Your task to perform on an android device: check out phone information Image 0: 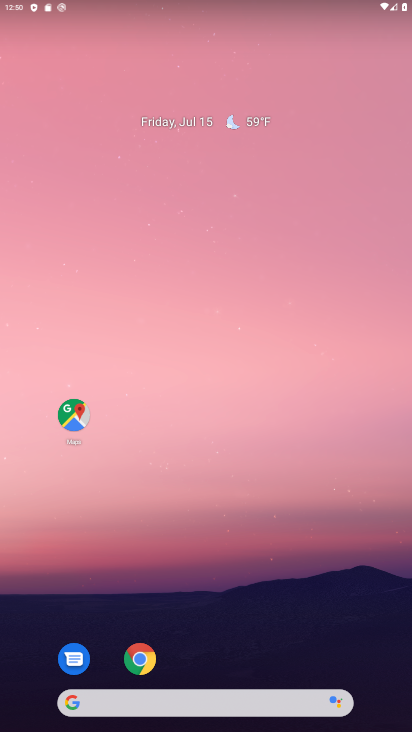
Step 0: drag from (213, 643) to (278, 131)
Your task to perform on an android device: check out phone information Image 1: 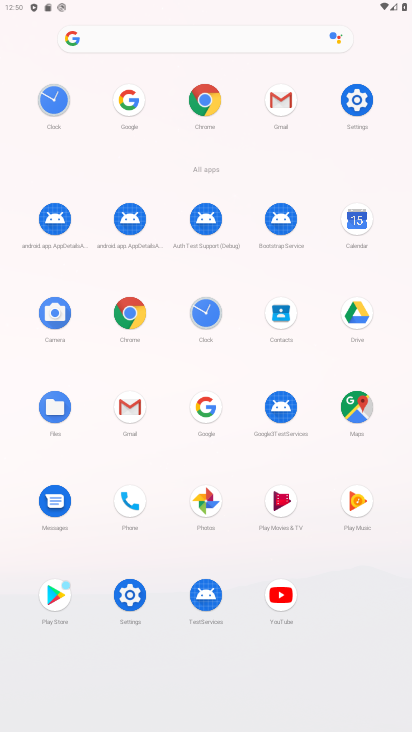
Step 1: click (348, 92)
Your task to perform on an android device: check out phone information Image 2: 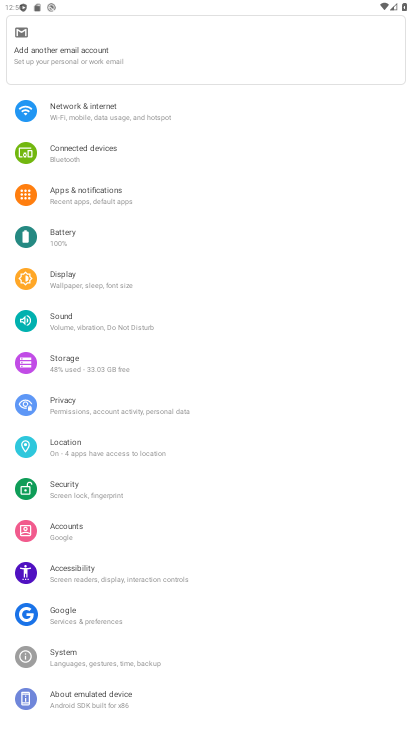
Step 2: click (83, 696)
Your task to perform on an android device: check out phone information Image 3: 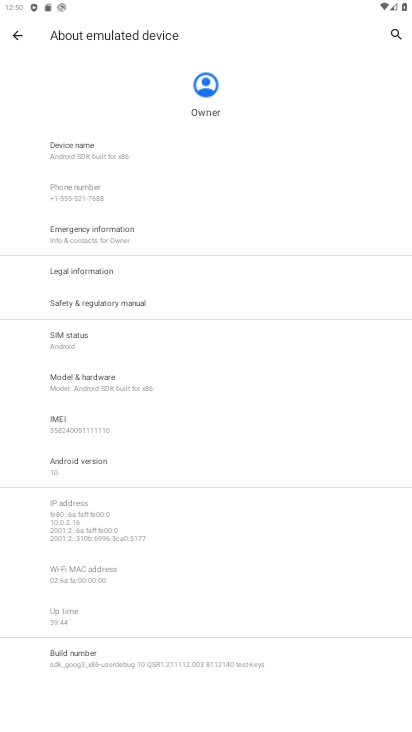
Step 3: task complete